Your task to perform on an android device: open a bookmark in the chrome app Image 0: 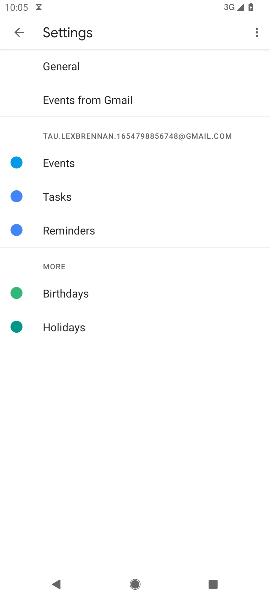
Step 0: press home button
Your task to perform on an android device: open a bookmark in the chrome app Image 1: 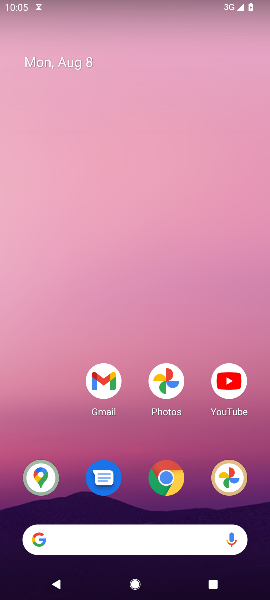
Step 1: click (171, 473)
Your task to perform on an android device: open a bookmark in the chrome app Image 2: 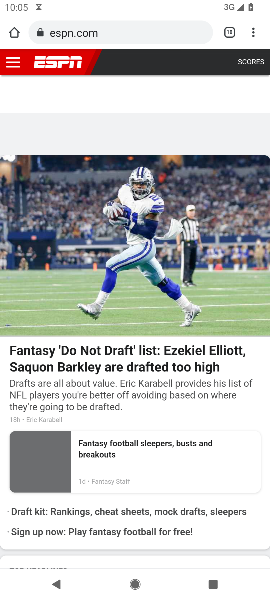
Step 2: task complete